Your task to perform on an android device: turn off location history Image 0: 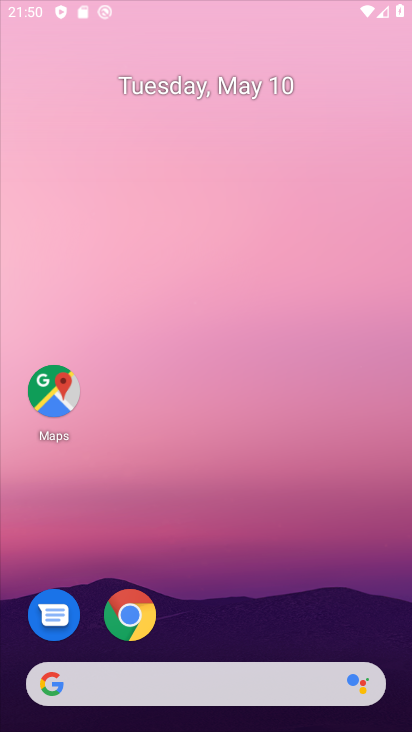
Step 0: drag from (110, 10) to (184, 564)
Your task to perform on an android device: turn off location history Image 1: 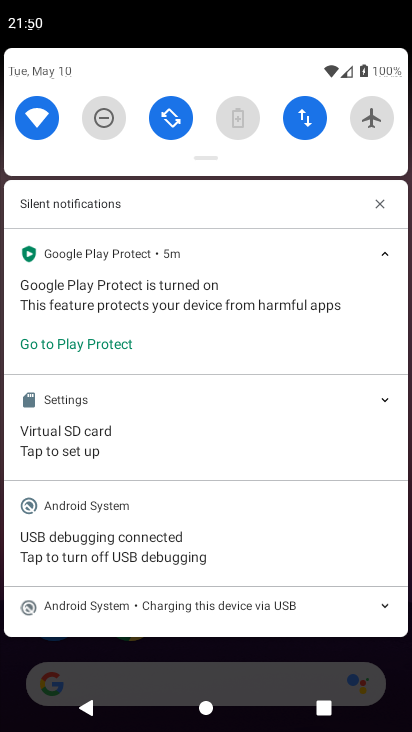
Step 1: click (38, 120)
Your task to perform on an android device: turn off location history Image 2: 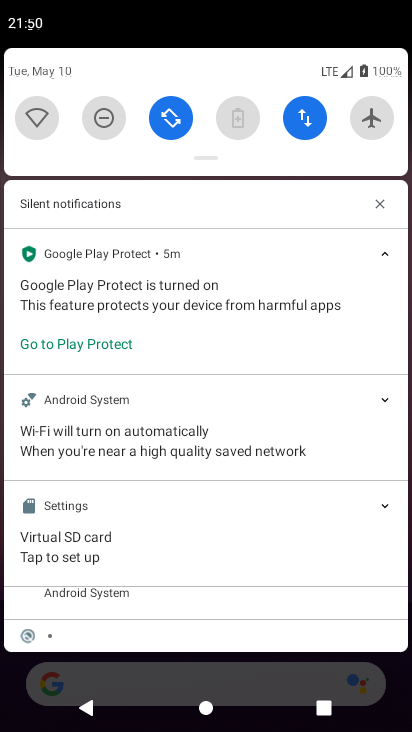
Step 2: task complete